Your task to perform on an android device: find which apps use the phone's location Image 0: 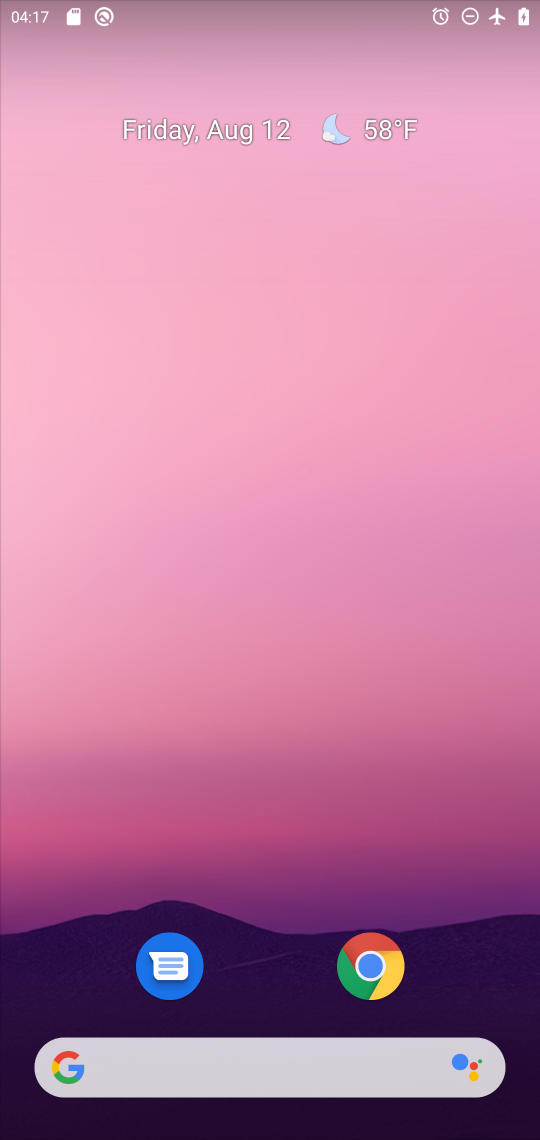
Step 0: drag from (268, 788) to (386, 133)
Your task to perform on an android device: find which apps use the phone's location Image 1: 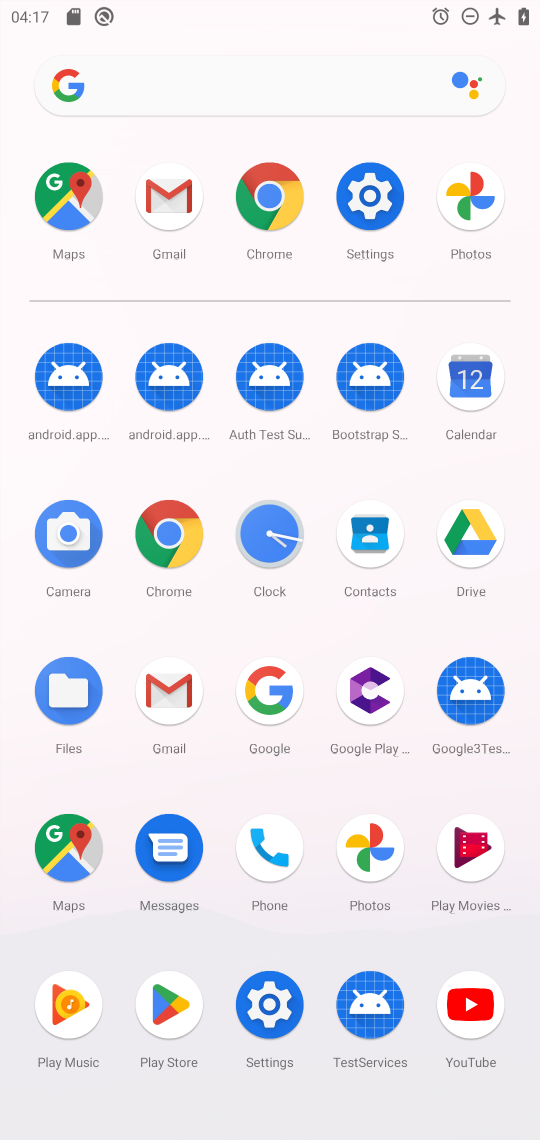
Step 1: click (267, 998)
Your task to perform on an android device: find which apps use the phone's location Image 2: 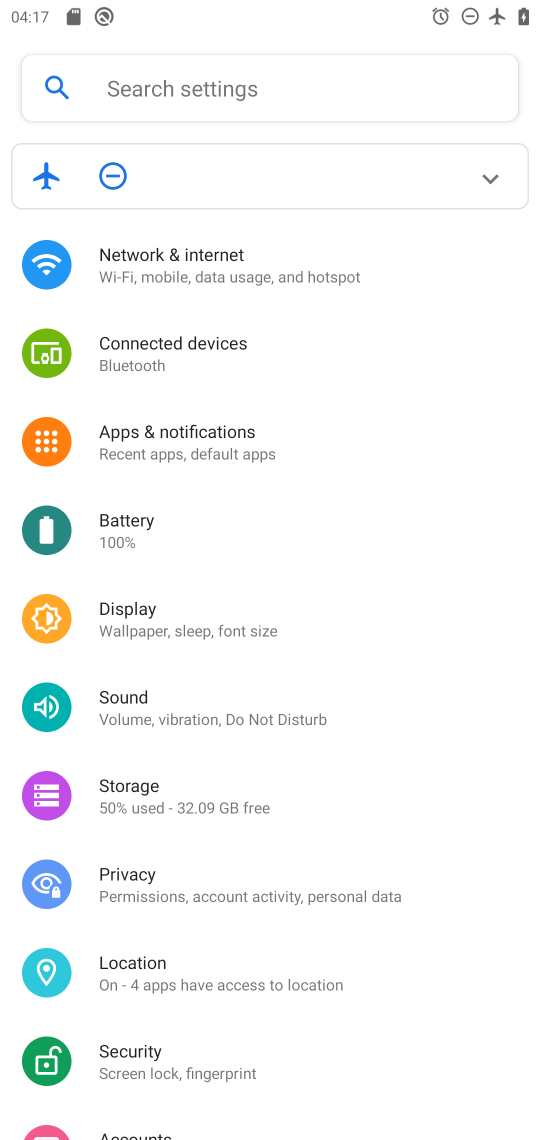
Step 2: click (122, 967)
Your task to perform on an android device: find which apps use the phone's location Image 3: 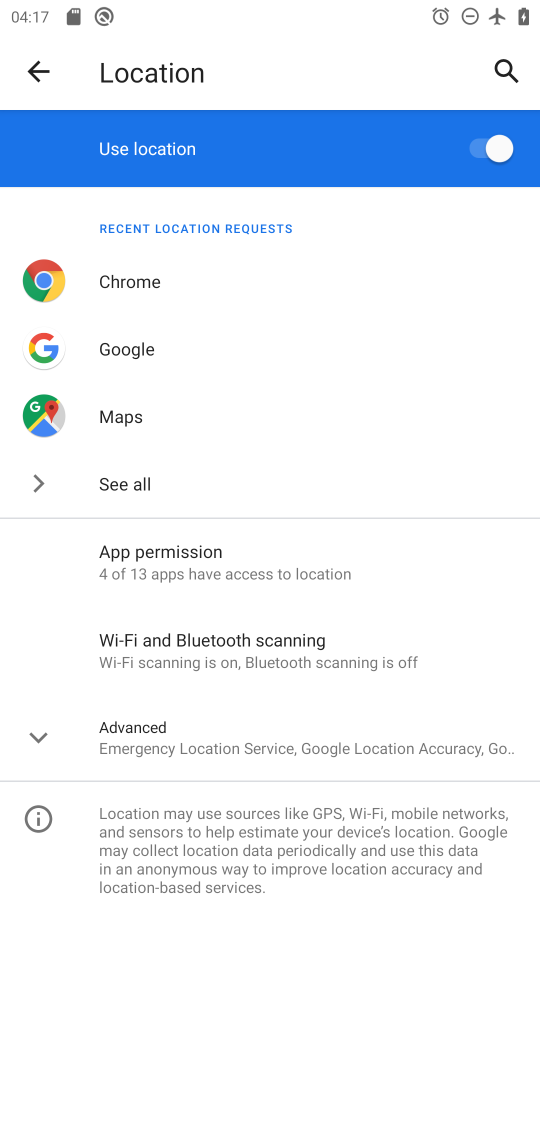
Step 3: click (233, 585)
Your task to perform on an android device: find which apps use the phone's location Image 4: 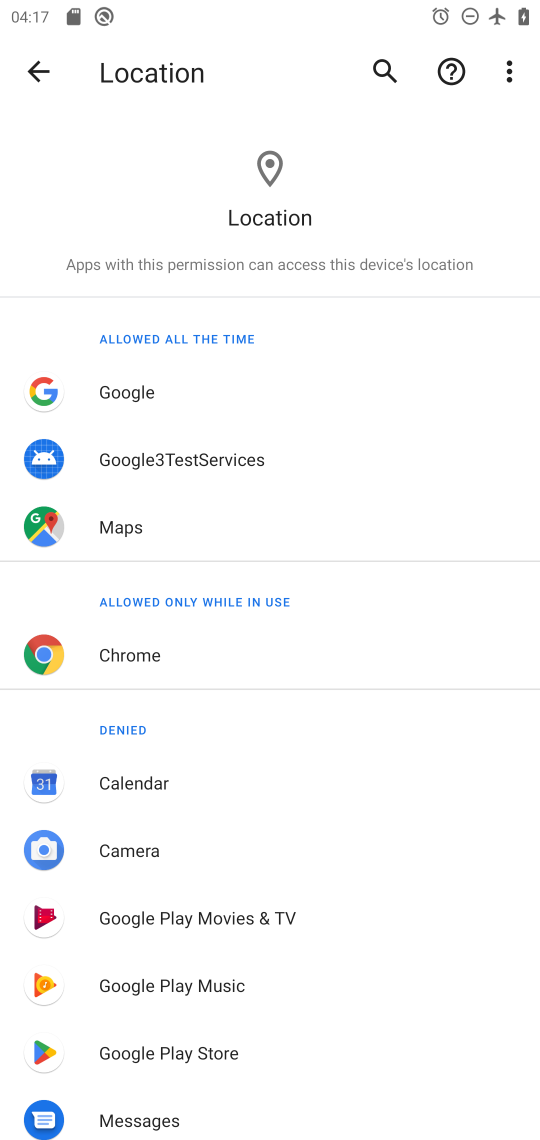
Step 4: task complete